Your task to perform on an android device: Go to sound settings Image 0: 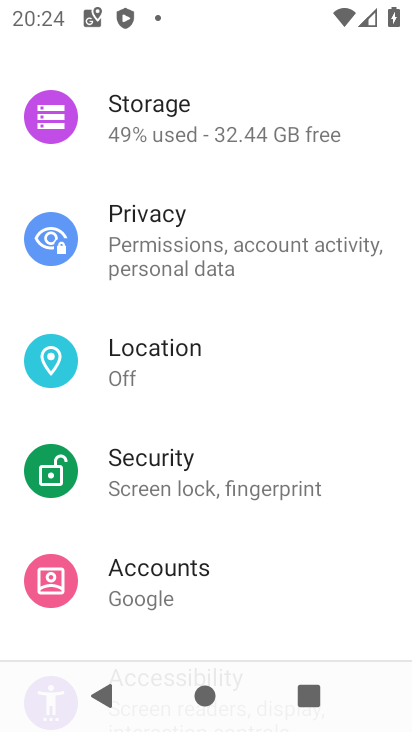
Step 0: drag from (370, 574) to (362, 466)
Your task to perform on an android device: Go to sound settings Image 1: 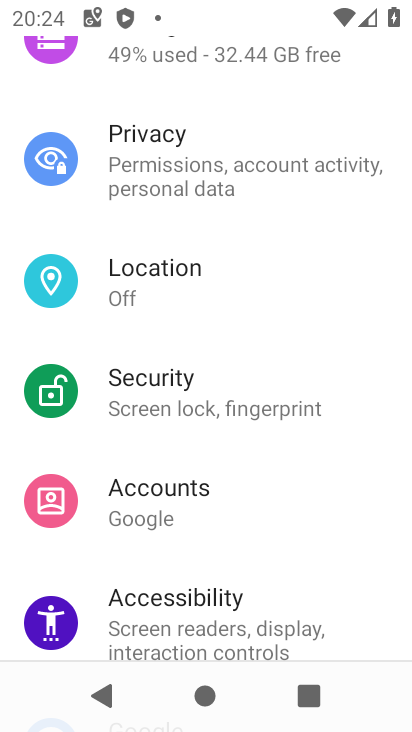
Step 1: drag from (366, 609) to (376, 465)
Your task to perform on an android device: Go to sound settings Image 2: 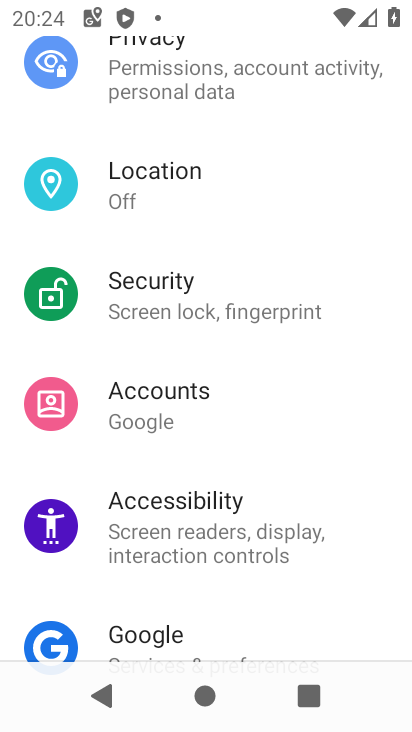
Step 2: drag from (338, 604) to (359, 477)
Your task to perform on an android device: Go to sound settings Image 3: 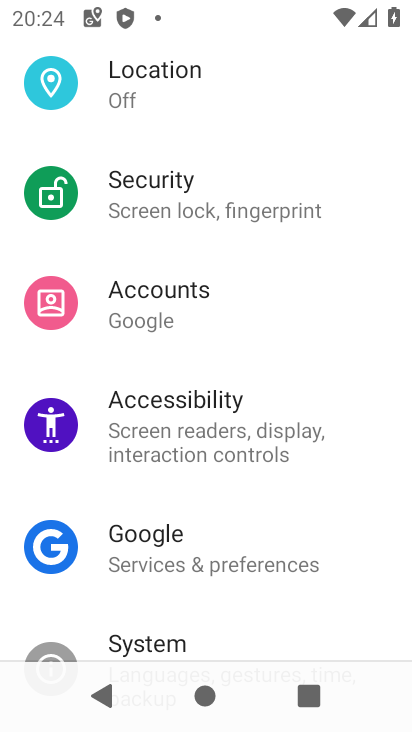
Step 3: drag from (360, 619) to (376, 490)
Your task to perform on an android device: Go to sound settings Image 4: 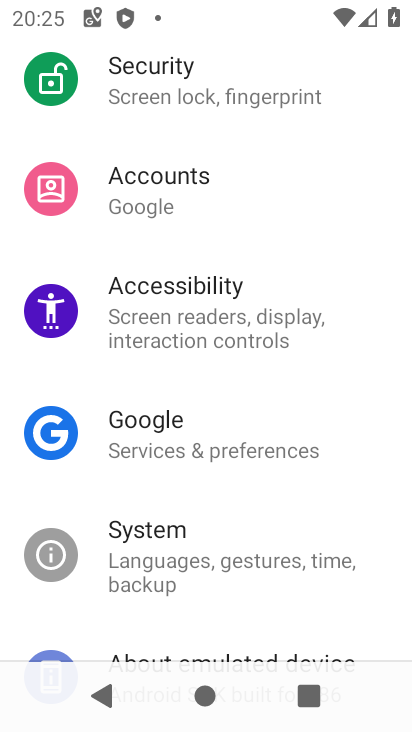
Step 4: drag from (370, 617) to (381, 463)
Your task to perform on an android device: Go to sound settings Image 5: 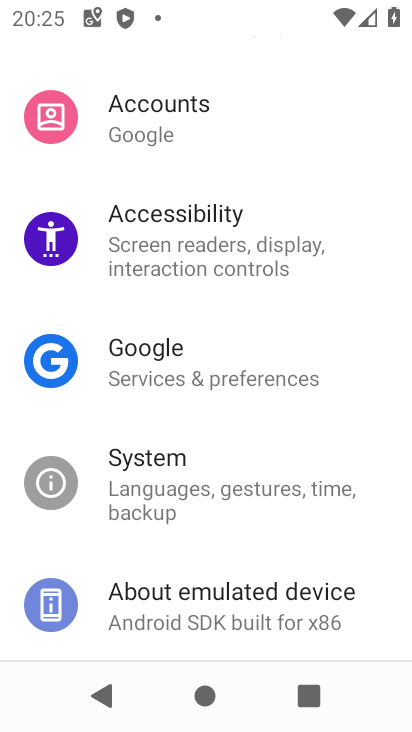
Step 5: drag from (376, 370) to (381, 512)
Your task to perform on an android device: Go to sound settings Image 6: 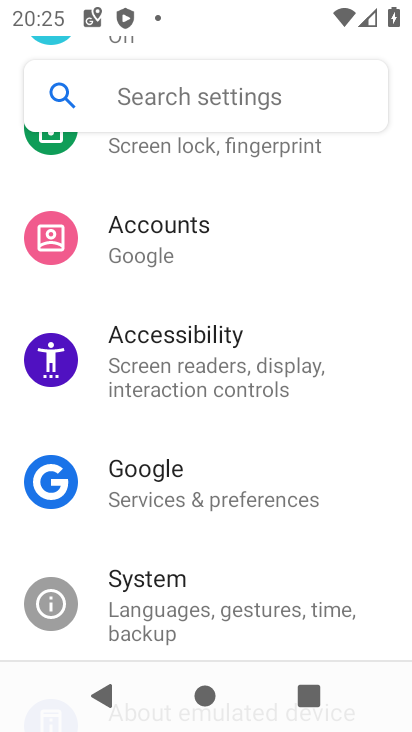
Step 6: drag from (385, 356) to (387, 479)
Your task to perform on an android device: Go to sound settings Image 7: 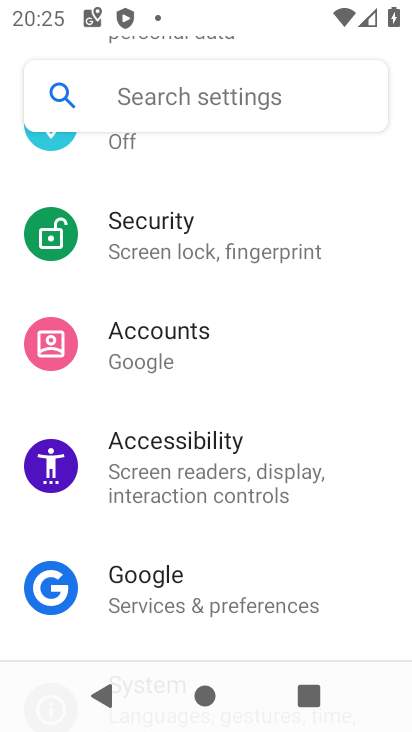
Step 7: drag from (371, 362) to (375, 468)
Your task to perform on an android device: Go to sound settings Image 8: 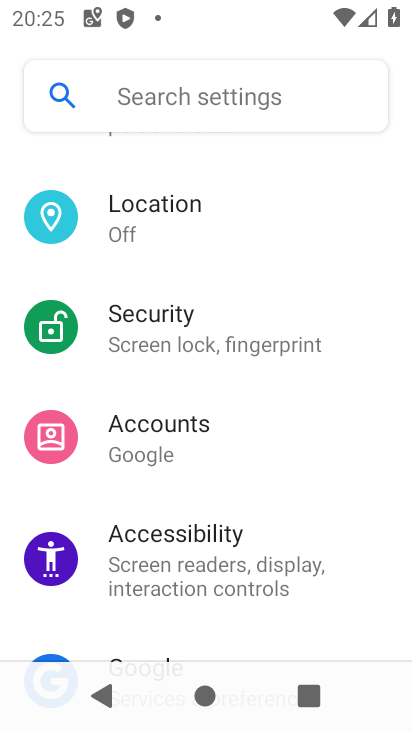
Step 8: drag from (356, 276) to (357, 363)
Your task to perform on an android device: Go to sound settings Image 9: 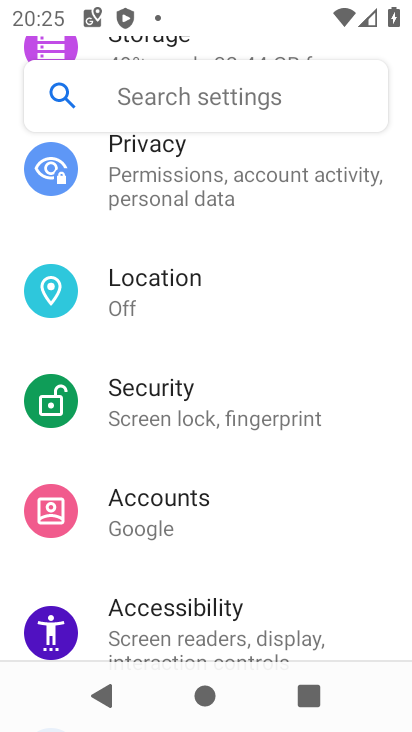
Step 9: drag from (369, 266) to (370, 390)
Your task to perform on an android device: Go to sound settings Image 10: 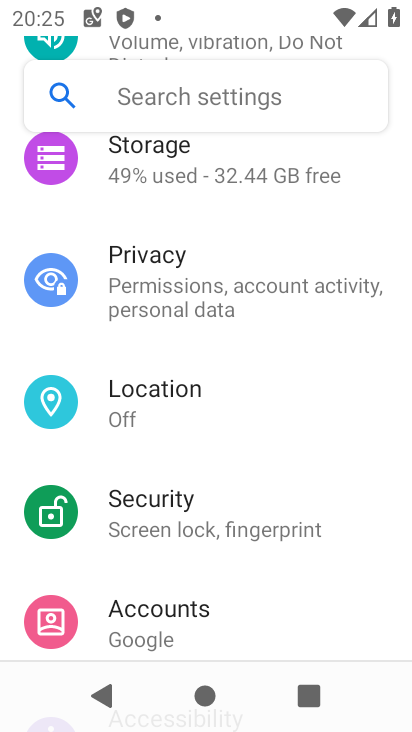
Step 10: drag from (363, 232) to (348, 375)
Your task to perform on an android device: Go to sound settings Image 11: 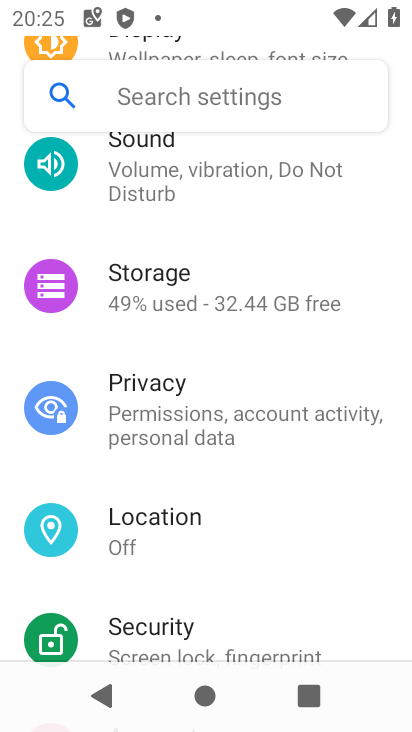
Step 11: drag from (361, 238) to (364, 367)
Your task to perform on an android device: Go to sound settings Image 12: 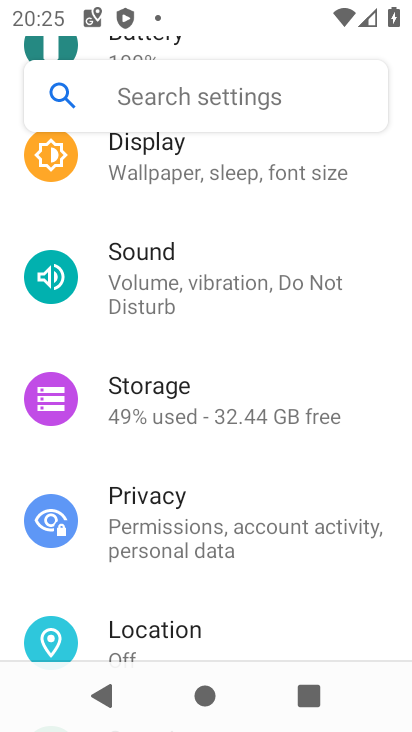
Step 12: drag from (377, 214) to (385, 417)
Your task to perform on an android device: Go to sound settings Image 13: 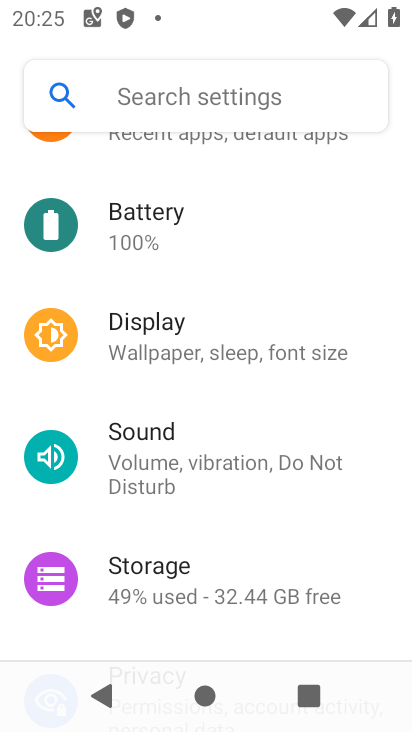
Step 13: click (268, 479)
Your task to perform on an android device: Go to sound settings Image 14: 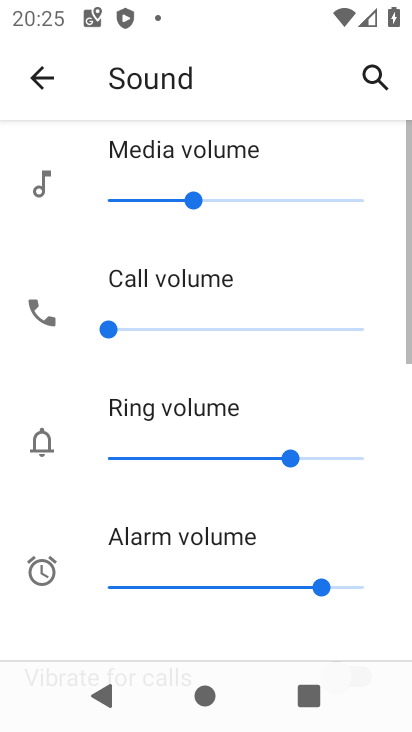
Step 14: task complete